Your task to perform on an android device: See recent photos Image 0: 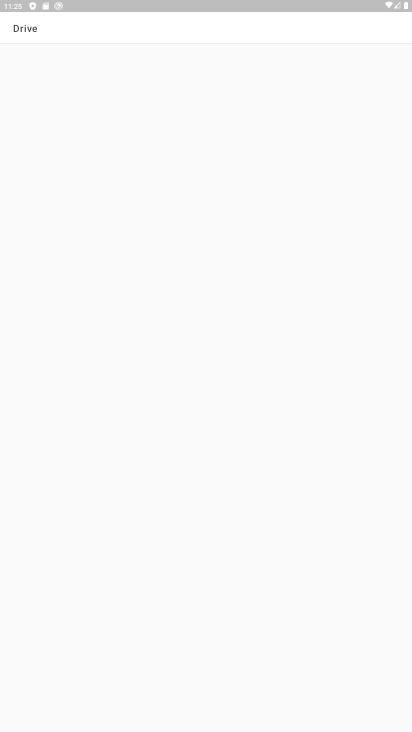
Step 0: press home button
Your task to perform on an android device: See recent photos Image 1: 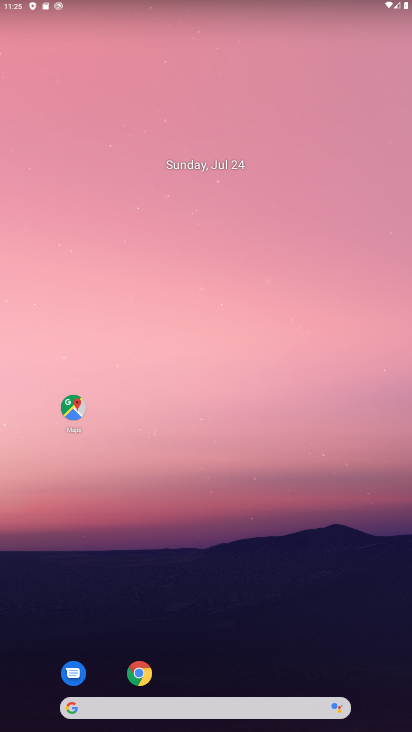
Step 1: drag from (193, 716) to (278, 161)
Your task to perform on an android device: See recent photos Image 2: 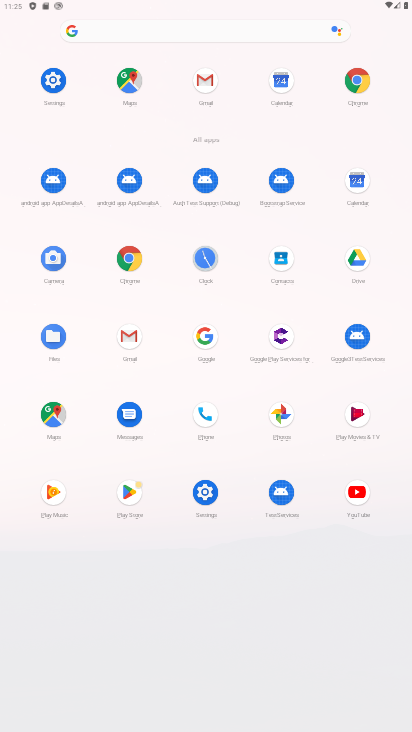
Step 2: click (282, 414)
Your task to perform on an android device: See recent photos Image 3: 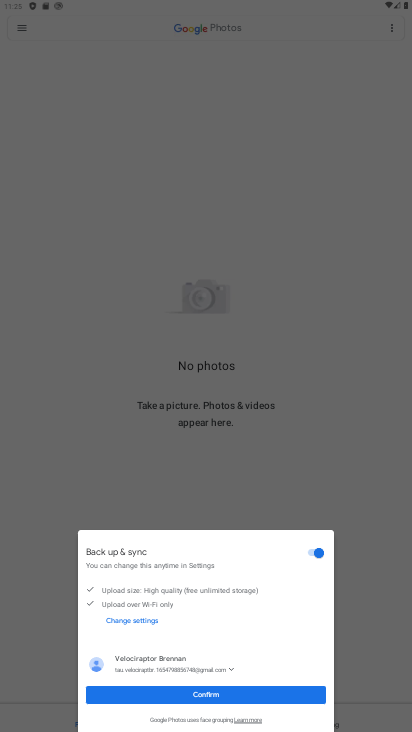
Step 3: click (213, 693)
Your task to perform on an android device: See recent photos Image 4: 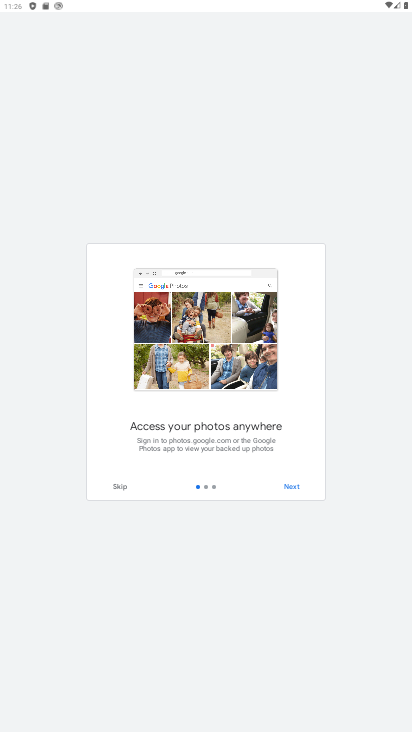
Step 4: click (292, 487)
Your task to perform on an android device: See recent photos Image 5: 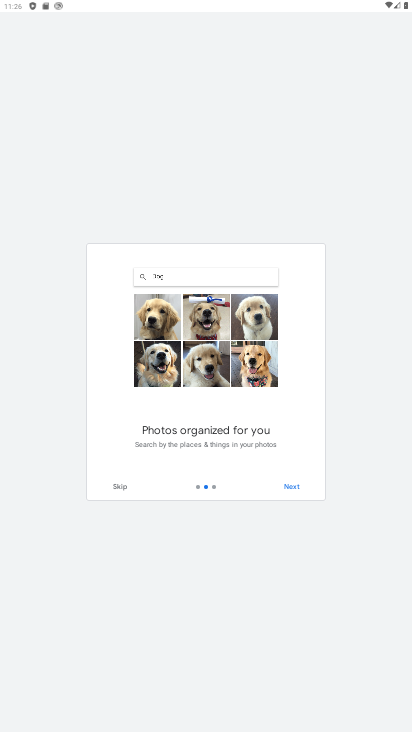
Step 5: click (292, 487)
Your task to perform on an android device: See recent photos Image 6: 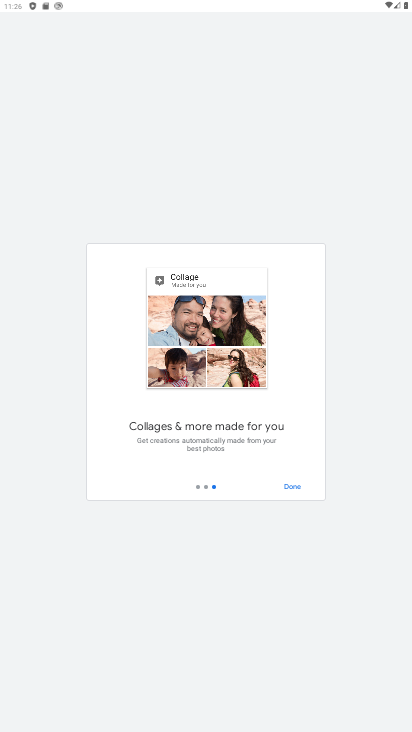
Step 6: click (301, 483)
Your task to perform on an android device: See recent photos Image 7: 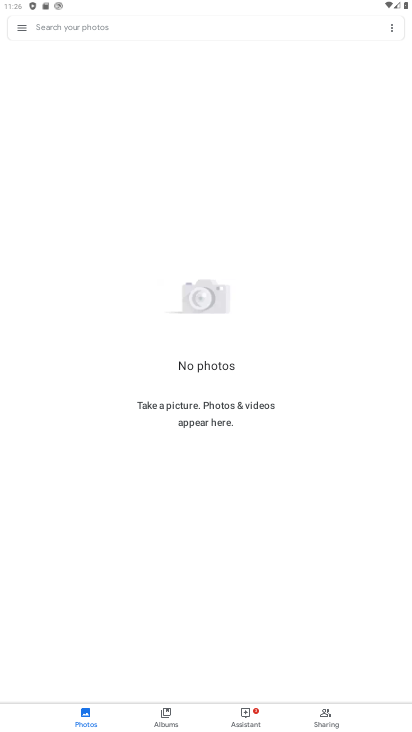
Step 7: click (161, 715)
Your task to perform on an android device: See recent photos Image 8: 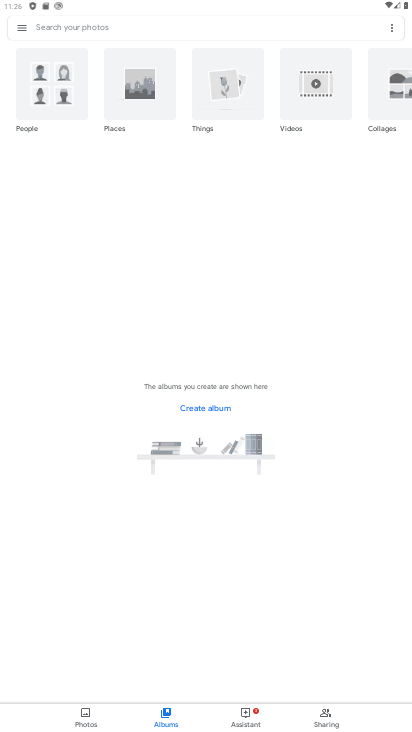
Step 8: click (119, 91)
Your task to perform on an android device: See recent photos Image 9: 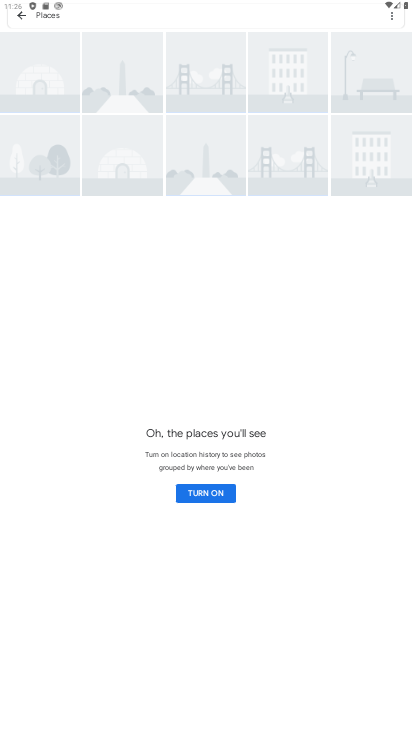
Step 9: click (225, 498)
Your task to perform on an android device: See recent photos Image 10: 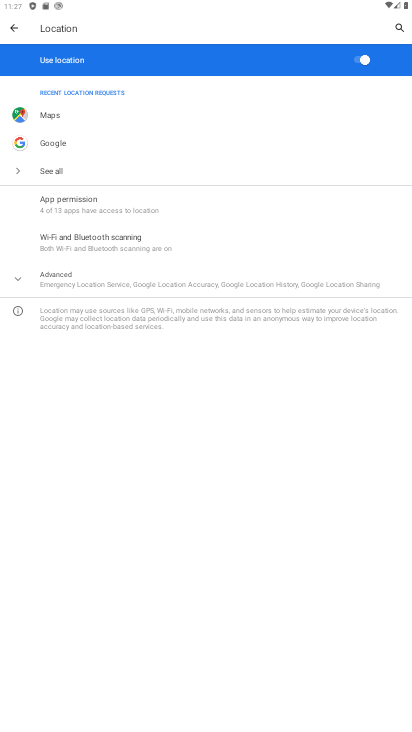
Step 10: press back button
Your task to perform on an android device: See recent photos Image 11: 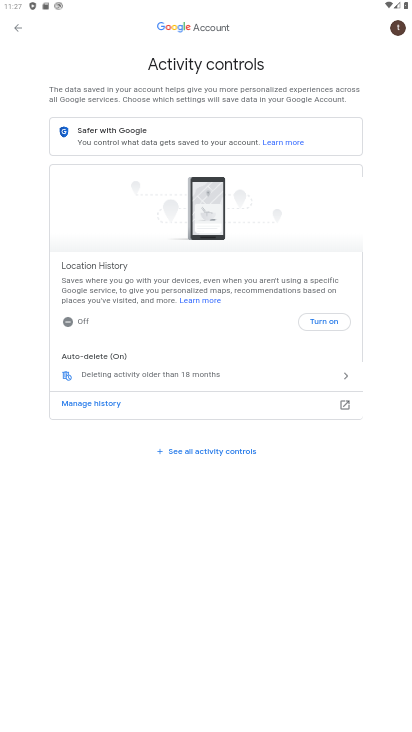
Step 11: press back button
Your task to perform on an android device: See recent photos Image 12: 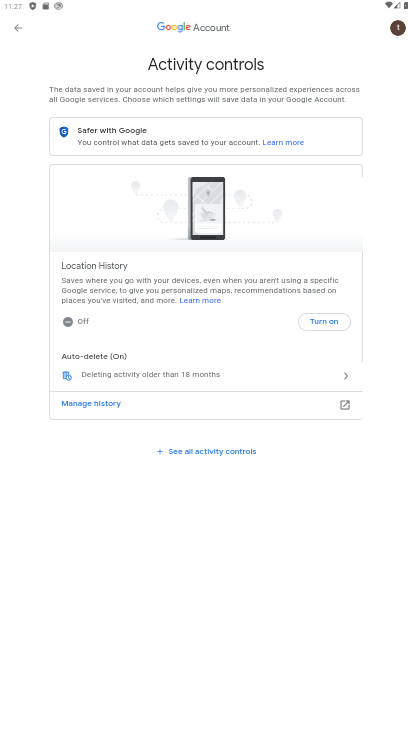
Step 12: press back button
Your task to perform on an android device: See recent photos Image 13: 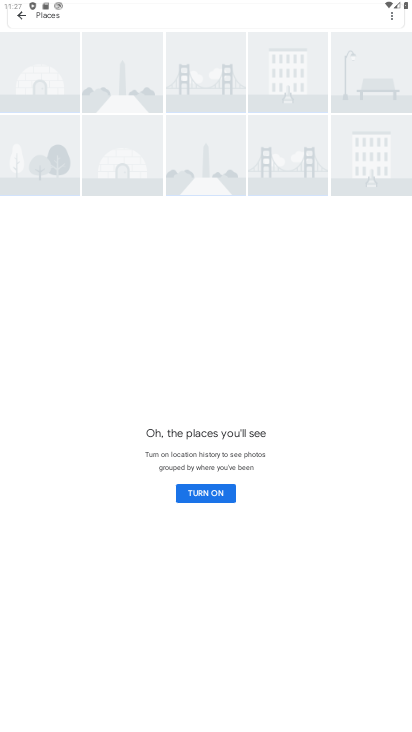
Step 13: press back button
Your task to perform on an android device: See recent photos Image 14: 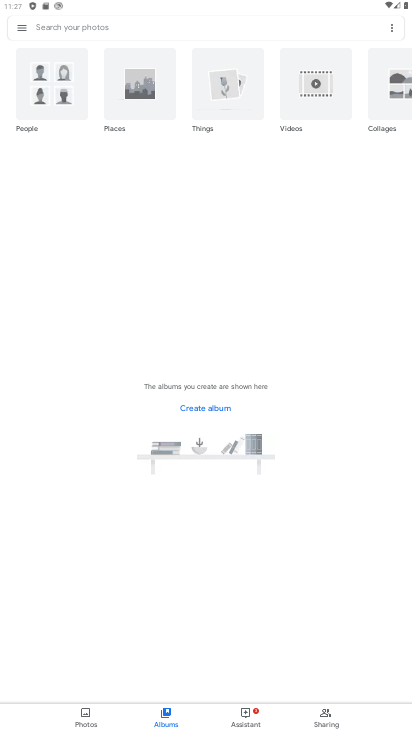
Step 14: click (236, 95)
Your task to perform on an android device: See recent photos Image 15: 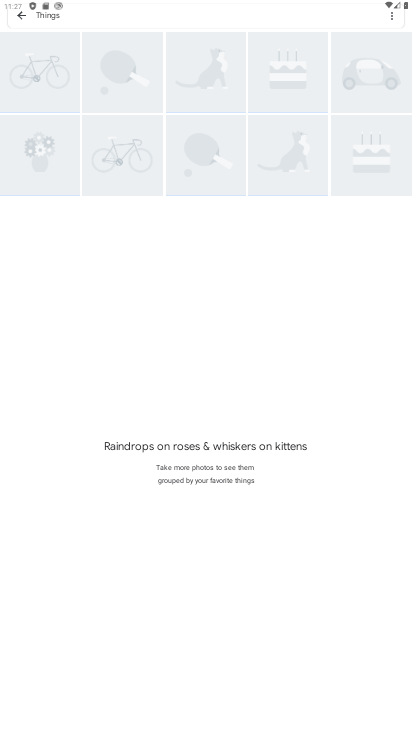
Step 15: task complete